Your task to perform on an android device: check data usage Image 0: 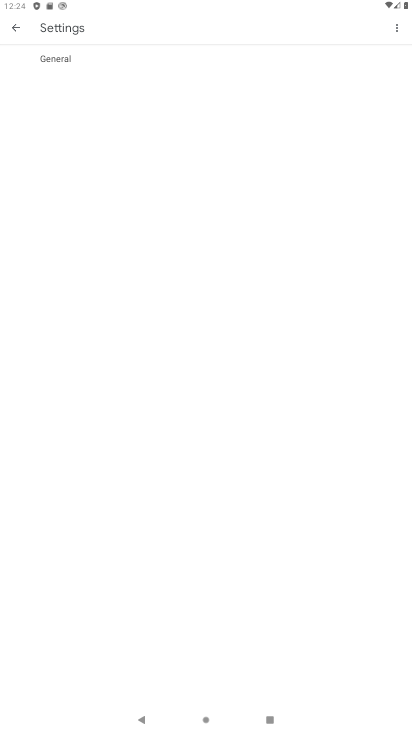
Step 0: press home button
Your task to perform on an android device: check data usage Image 1: 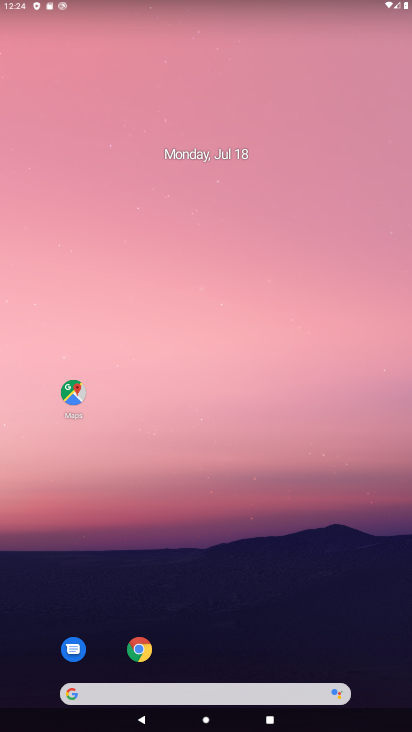
Step 1: drag from (23, 701) to (262, 95)
Your task to perform on an android device: check data usage Image 2: 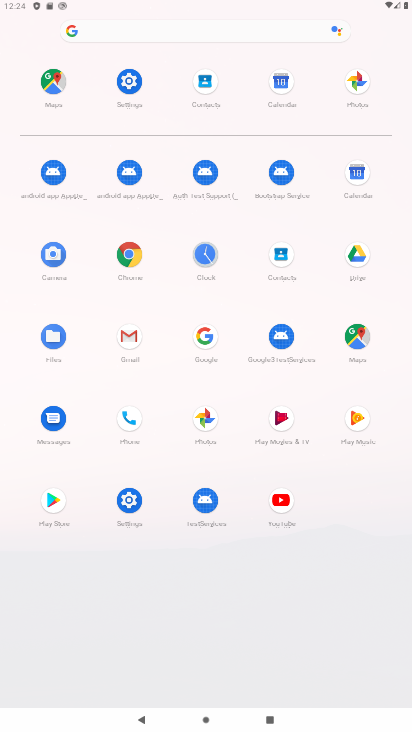
Step 2: click (120, 498)
Your task to perform on an android device: check data usage Image 3: 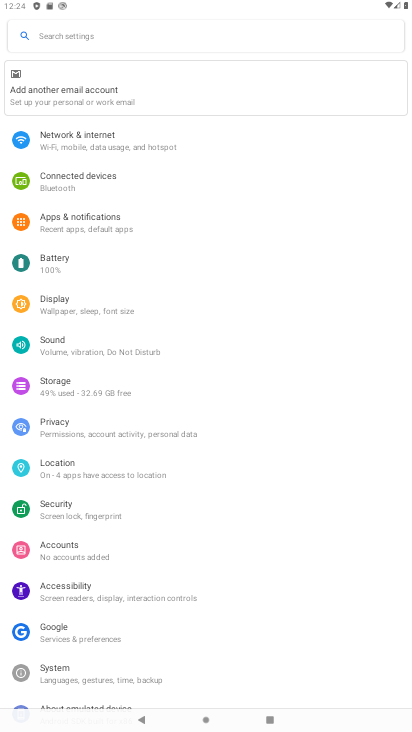
Step 3: click (113, 139)
Your task to perform on an android device: check data usage Image 4: 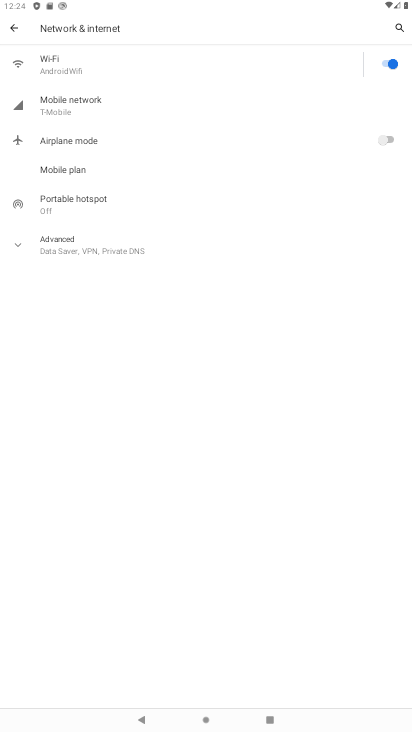
Step 4: click (98, 102)
Your task to perform on an android device: check data usage Image 5: 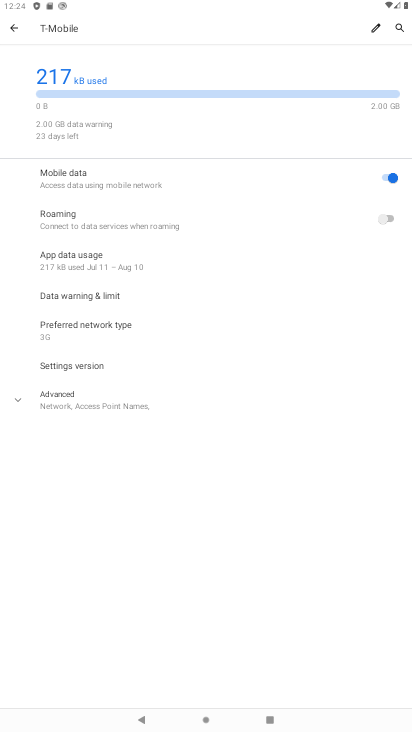
Step 5: task complete